Your task to perform on an android device: What's on my calendar tomorrow? Image 0: 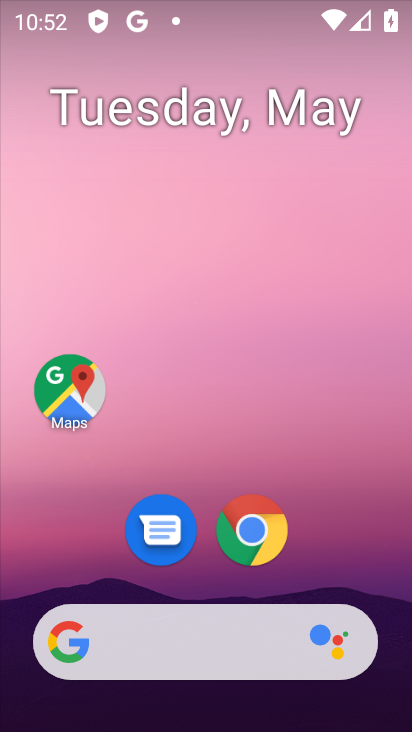
Step 0: drag from (329, 516) to (297, 81)
Your task to perform on an android device: What's on my calendar tomorrow? Image 1: 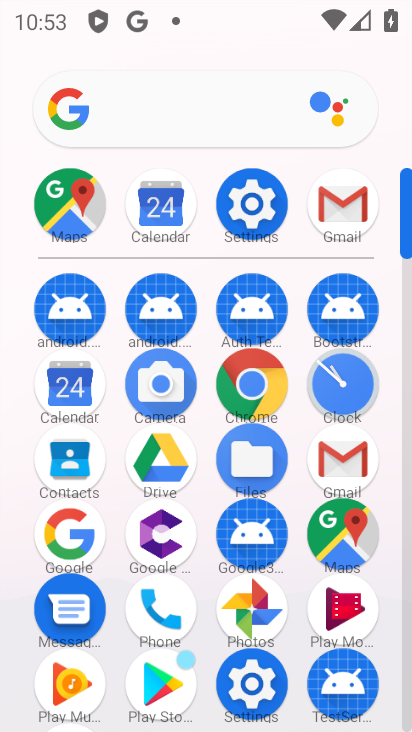
Step 1: click (74, 387)
Your task to perform on an android device: What's on my calendar tomorrow? Image 2: 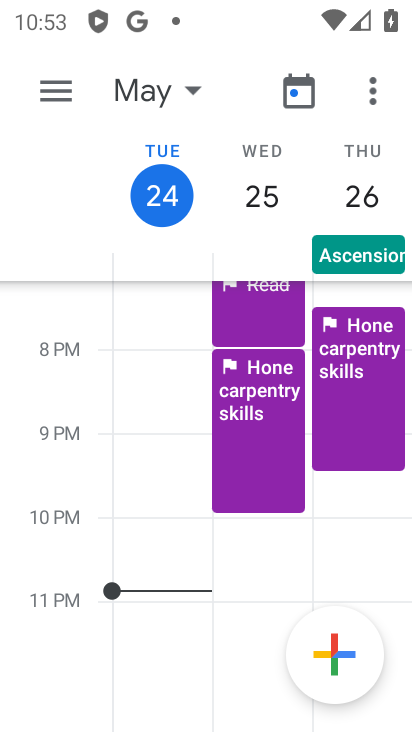
Step 2: task complete